Your task to perform on an android device: change text size in settings app Image 0: 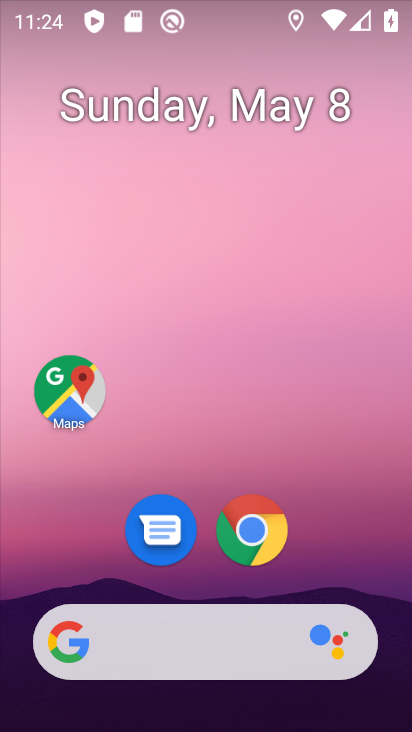
Step 0: drag from (300, 600) to (323, 0)
Your task to perform on an android device: change text size in settings app Image 1: 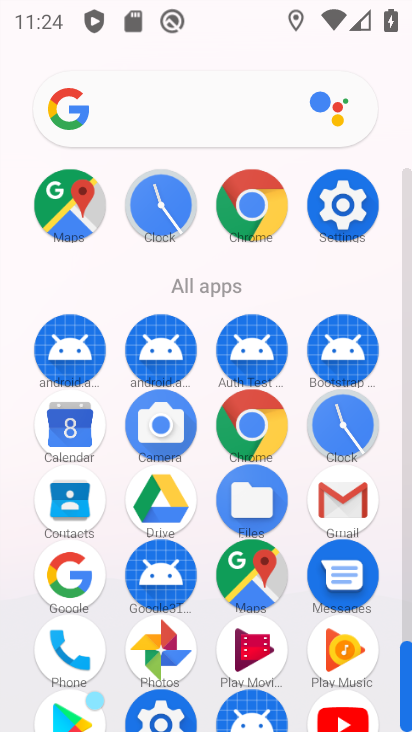
Step 1: drag from (303, 626) to (319, 220)
Your task to perform on an android device: change text size in settings app Image 2: 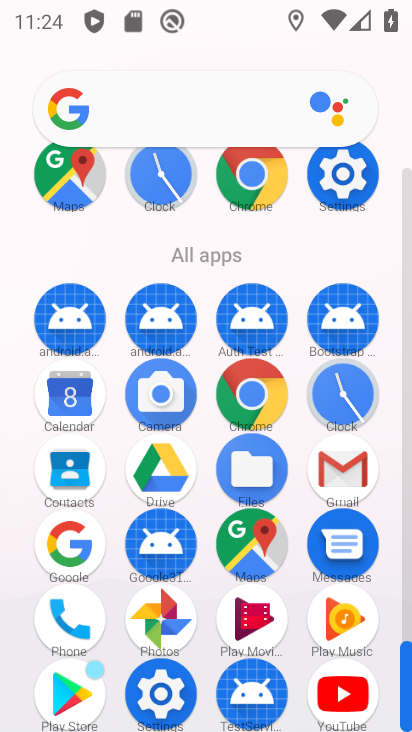
Step 2: click (170, 701)
Your task to perform on an android device: change text size in settings app Image 3: 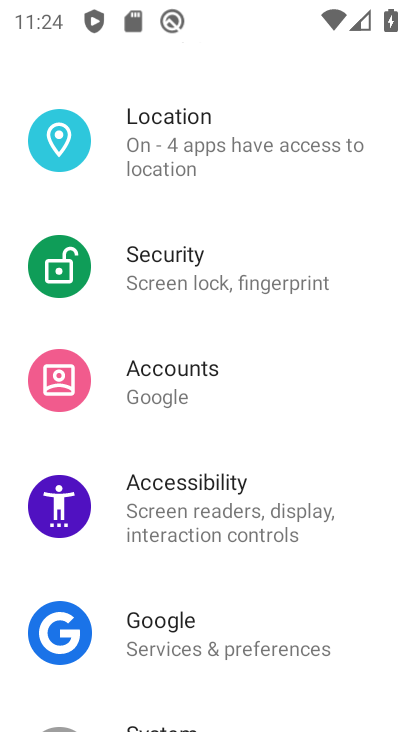
Step 3: drag from (218, 372) to (262, 729)
Your task to perform on an android device: change text size in settings app Image 4: 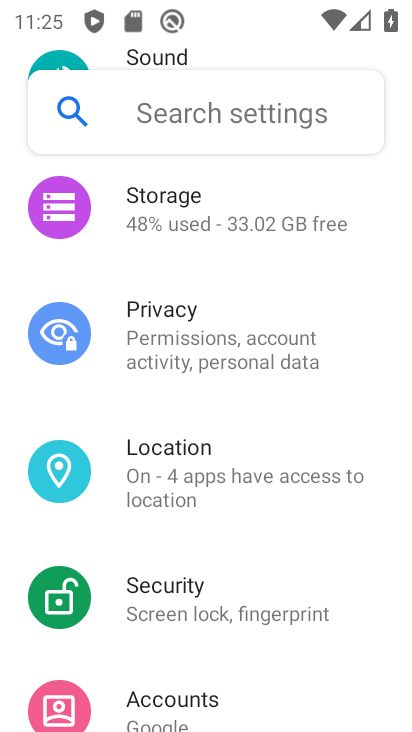
Step 4: drag from (215, 264) to (218, 120)
Your task to perform on an android device: change text size in settings app Image 5: 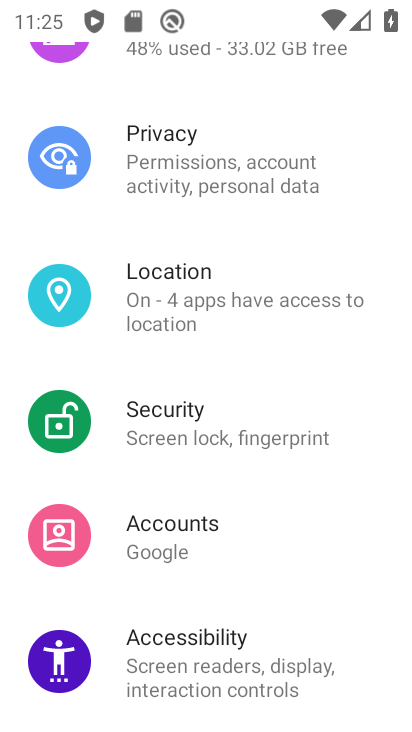
Step 5: drag from (176, 689) to (153, 162)
Your task to perform on an android device: change text size in settings app Image 6: 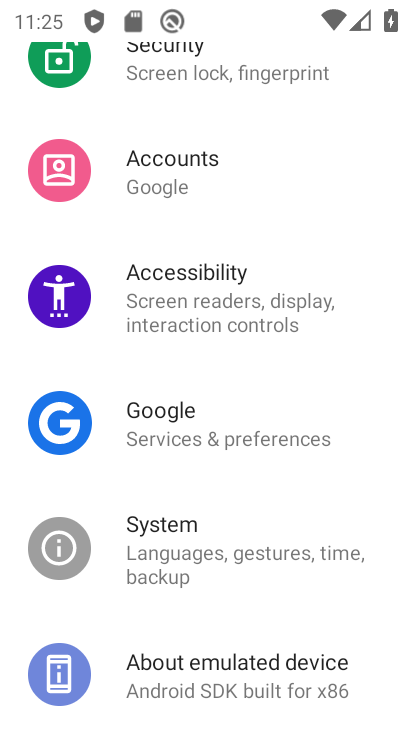
Step 6: click (185, 553)
Your task to perform on an android device: change text size in settings app Image 7: 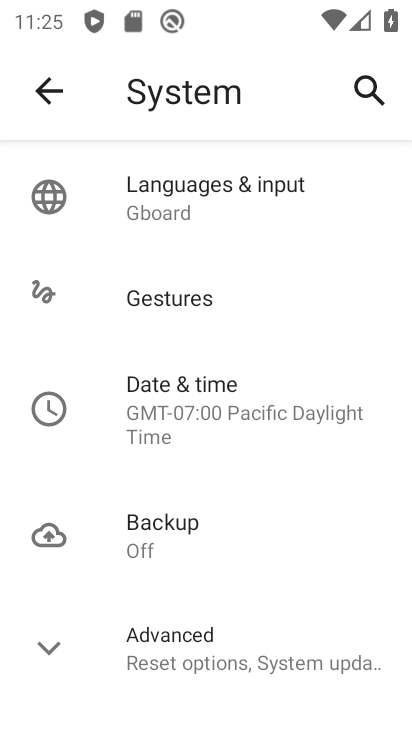
Step 7: press back button
Your task to perform on an android device: change text size in settings app Image 8: 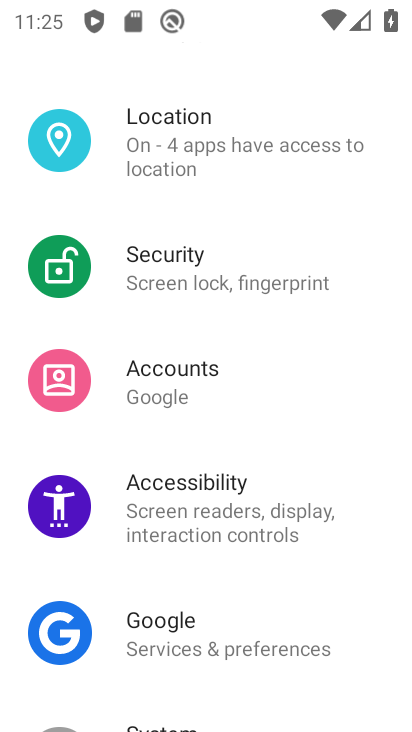
Step 8: click (205, 505)
Your task to perform on an android device: change text size in settings app Image 9: 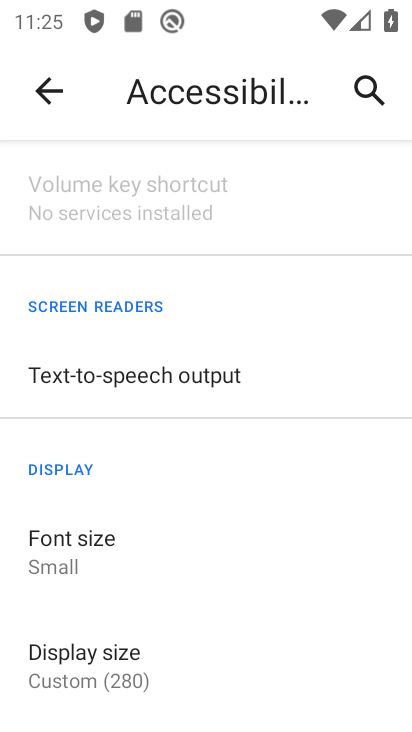
Step 9: click (135, 567)
Your task to perform on an android device: change text size in settings app Image 10: 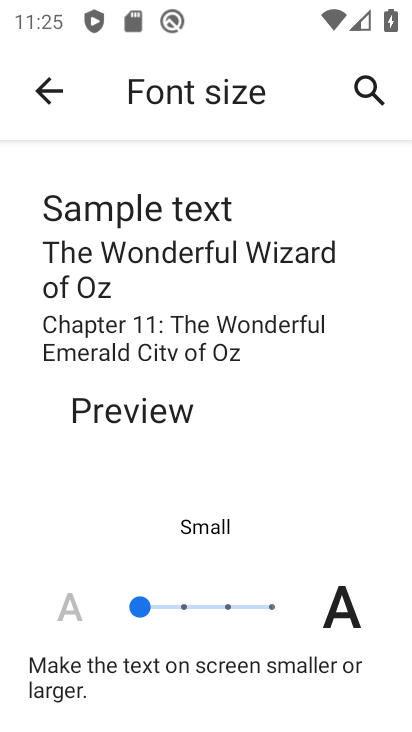
Step 10: click (165, 608)
Your task to perform on an android device: change text size in settings app Image 11: 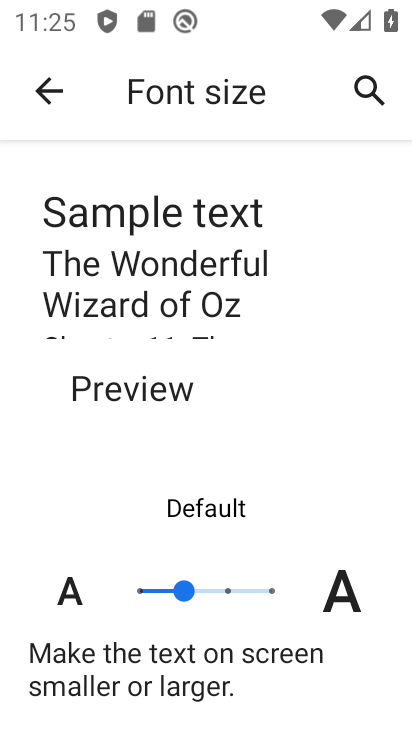
Step 11: task complete